Your task to perform on an android device: Open Maps and search for coffee Image 0: 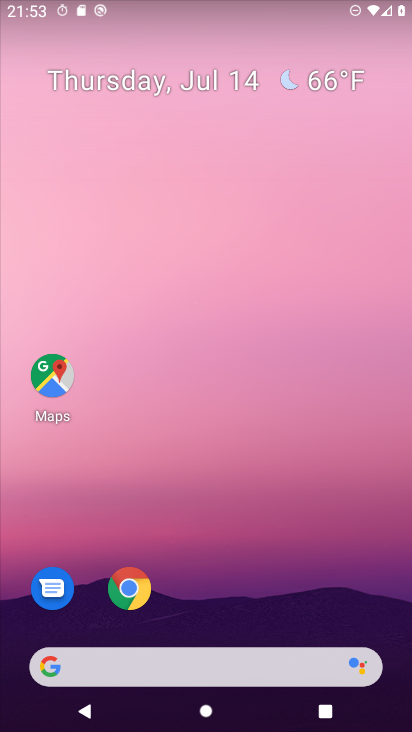
Step 0: drag from (348, 588) to (369, 91)
Your task to perform on an android device: Open Maps and search for coffee Image 1: 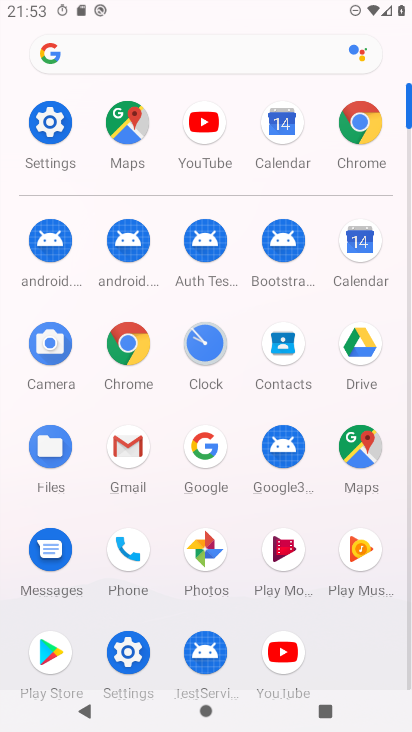
Step 1: click (361, 455)
Your task to perform on an android device: Open Maps and search for coffee Image 2: 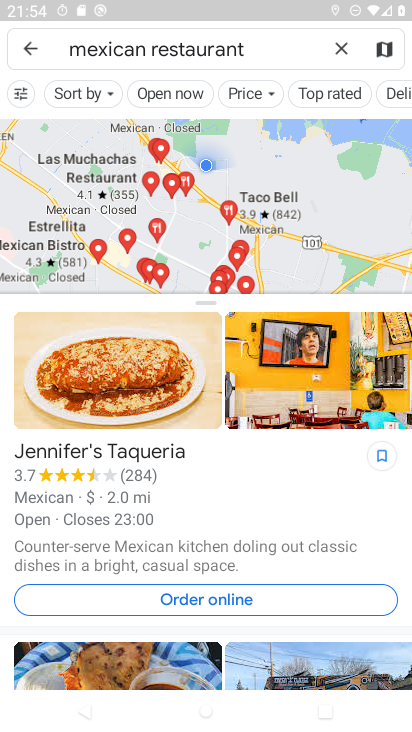
Step 2: press back button
Your task to perform on an android device: Open Maps and search for coffee Image 3: 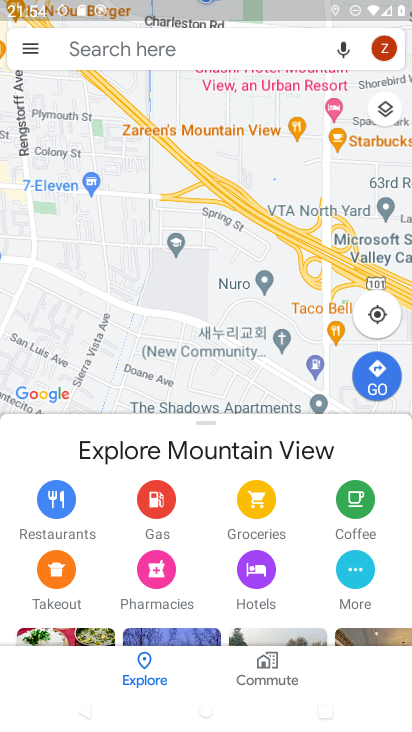
Step 3: click (201, 49)
Your task to perform on an android device: Open Maps and search for coffee Image 4: 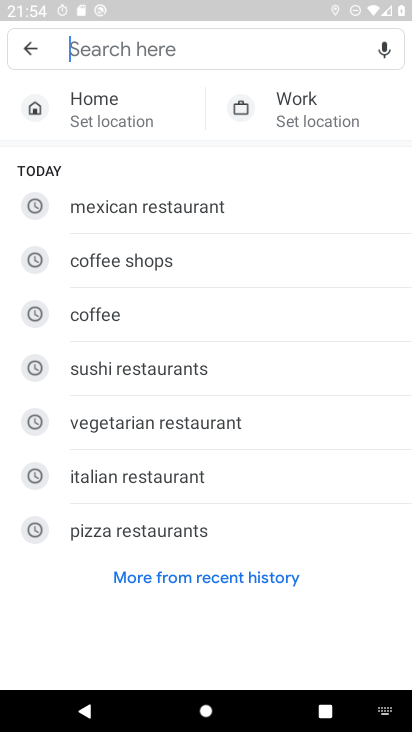
Step 4: type "coffee"
Your task to perform on an android device: Open Maps and search for coffee Image 5: 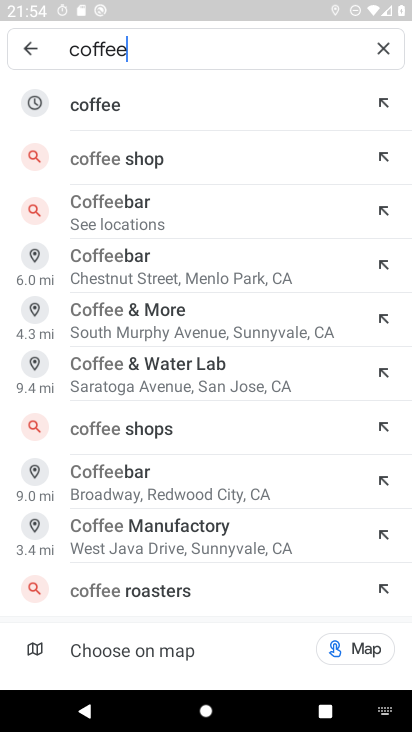
Step 5: click (185, 96)
Your task to perform on an android device: Open Maps and search for coffee Image 6: 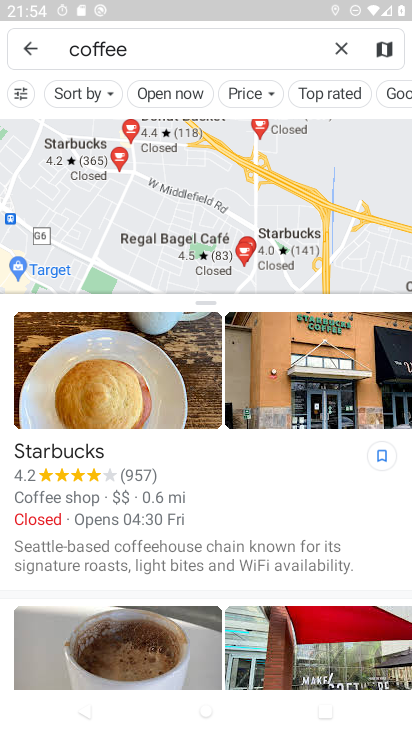
Step 6: task complete